Your task to perform on an android device: change keyboard looks Image 0: 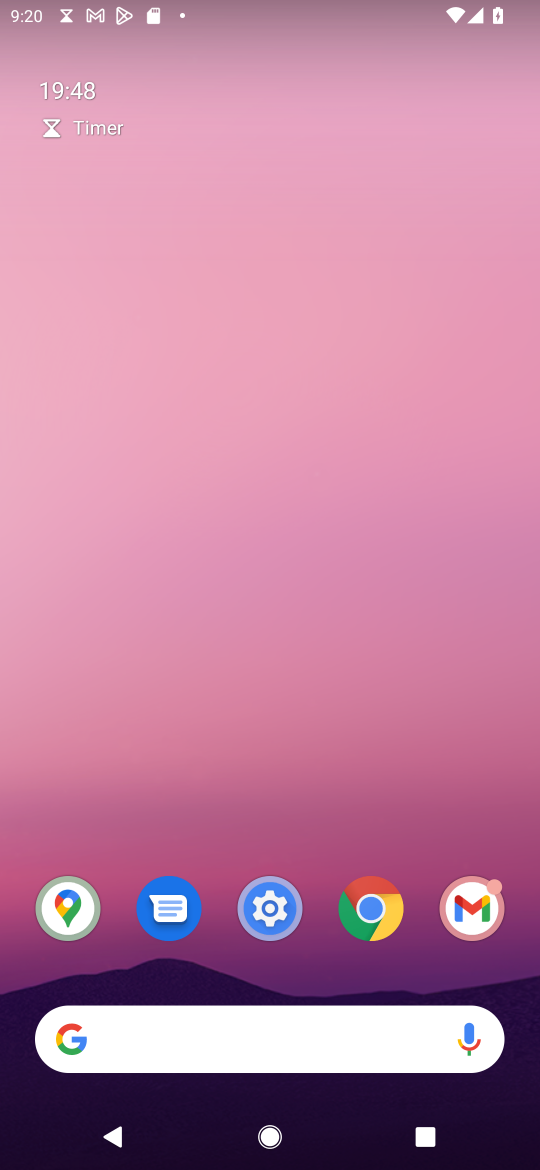
Step 0: click (293, 920)
Your task to perform on an android device: change keyboard looks Image 1: 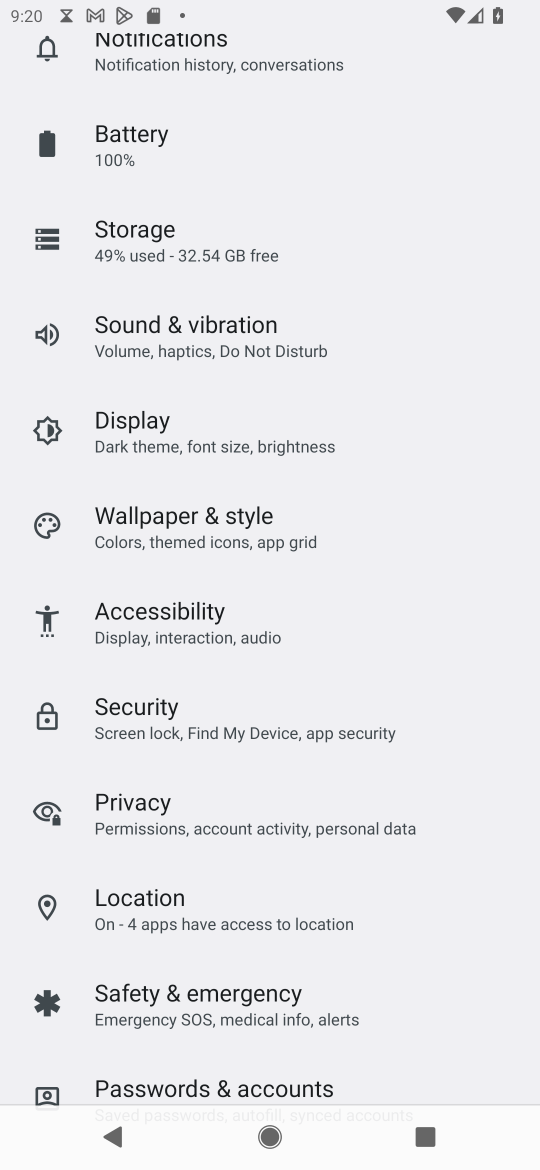
Step 1: drag from (236, 1013) to (308, 197)
Your task to perform on an android device: change keyboard looks Image 2: 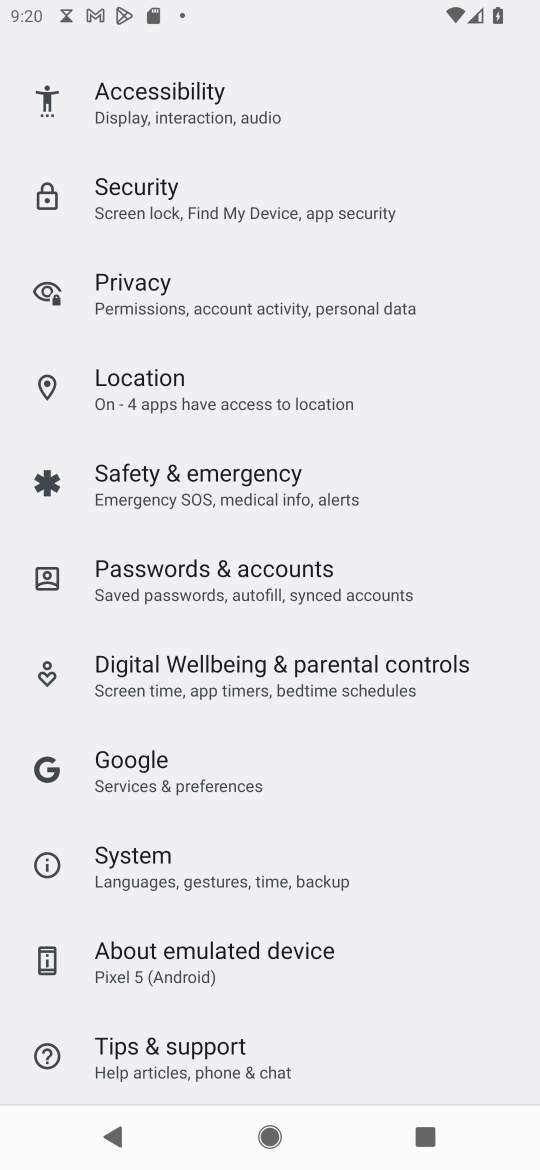
Step 2: drag from (332, 972) to (373, 423)
Your task to perform on an android device: change keyboard looks Image 3: 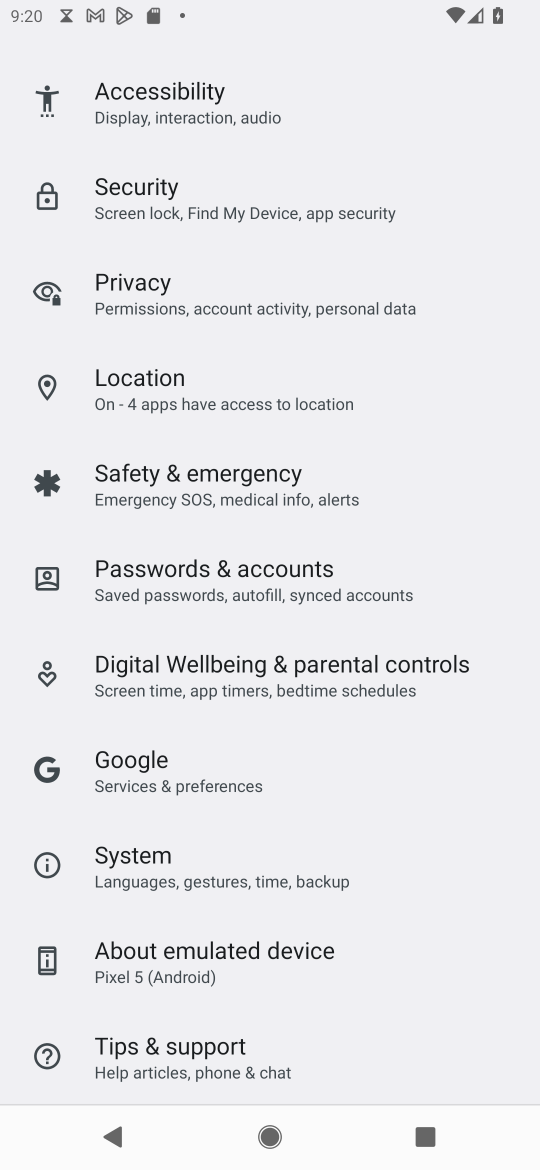
Step 3: click (194, 869)
Your task to perform on an android device: change keyboard looks Image 4: 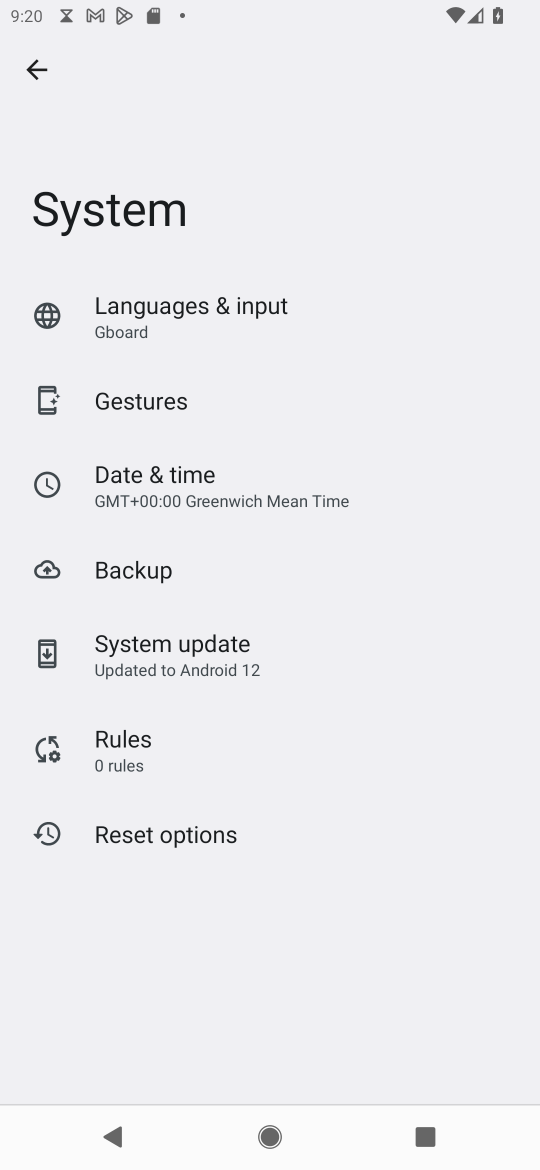
Step 4: click (132, 307)
Your task to perform on an android device: change keyboard looks Image 5: 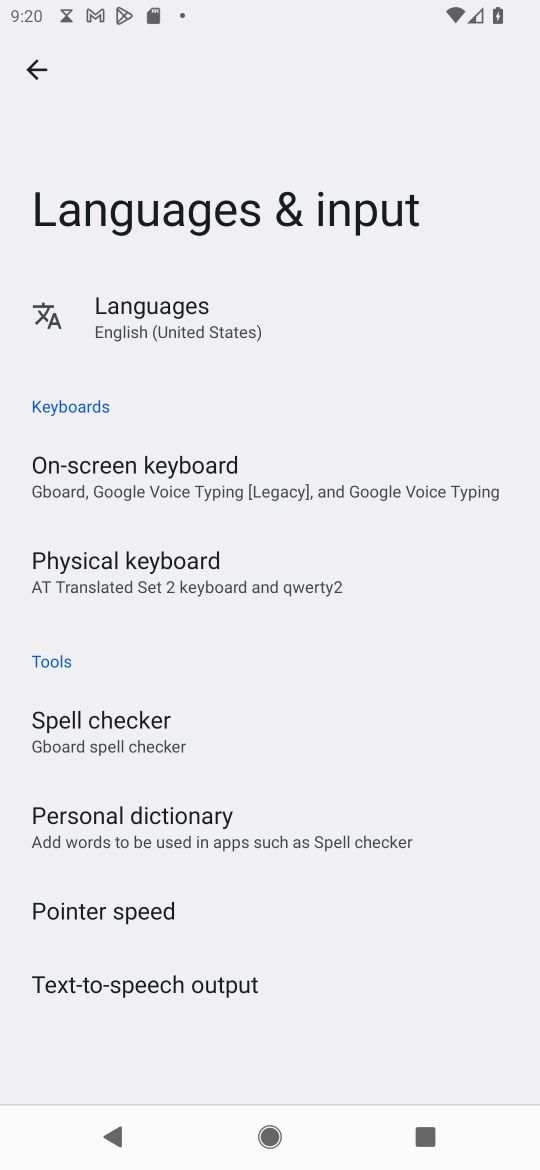
Step 5: click (125, 473)
Your task to perform on an android device: change keyboard looks Image 6: 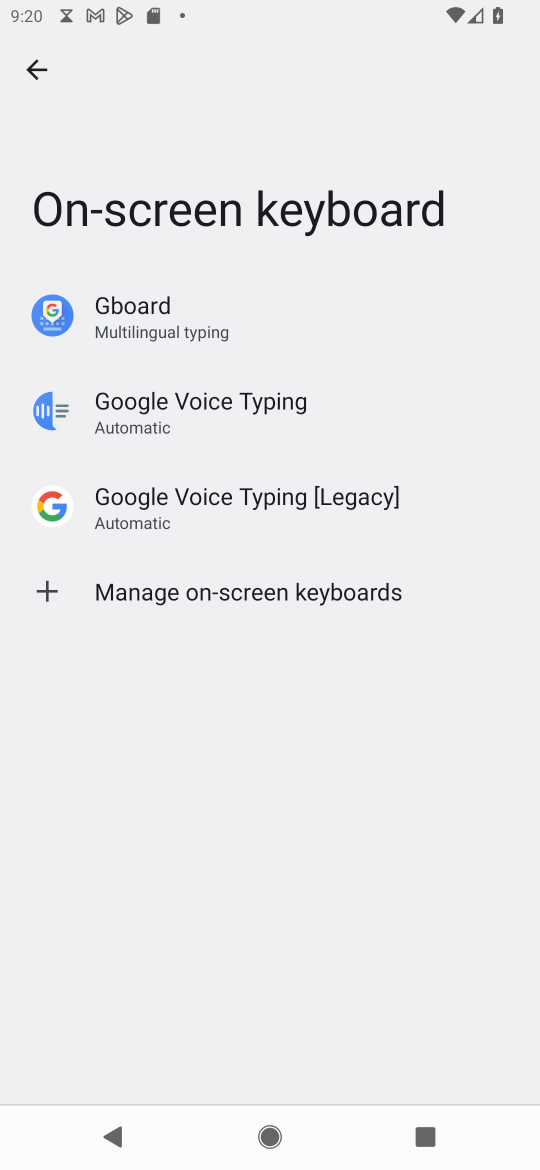
Step 6: click (128, 340)
Your task to perform on an android device: change keyboard looks Image 7: 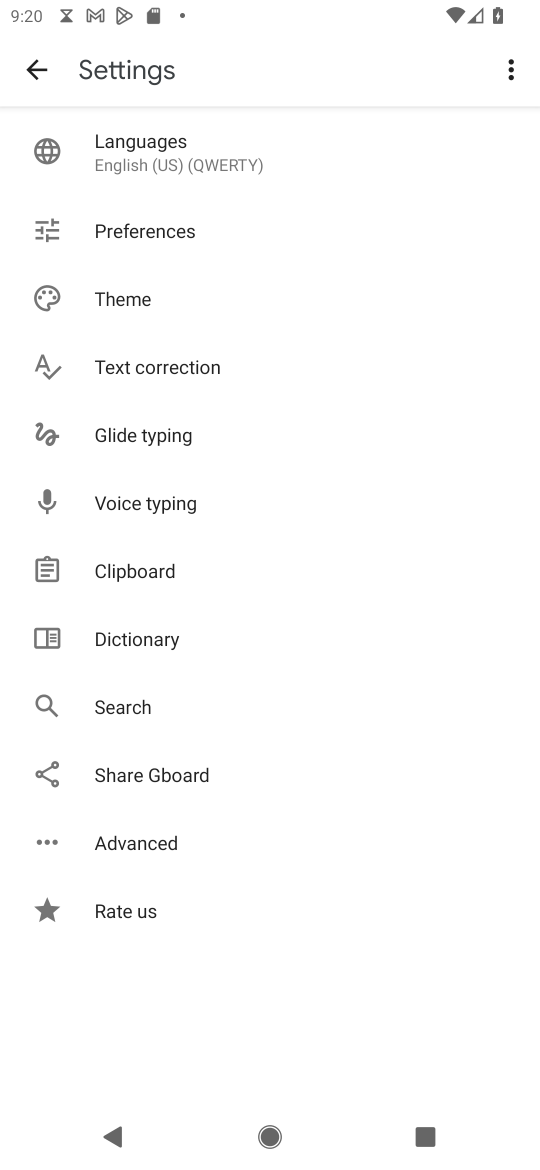
Step 7: click (82, 299)
Your task to perform on an android device: change keyboard looks Image 8: 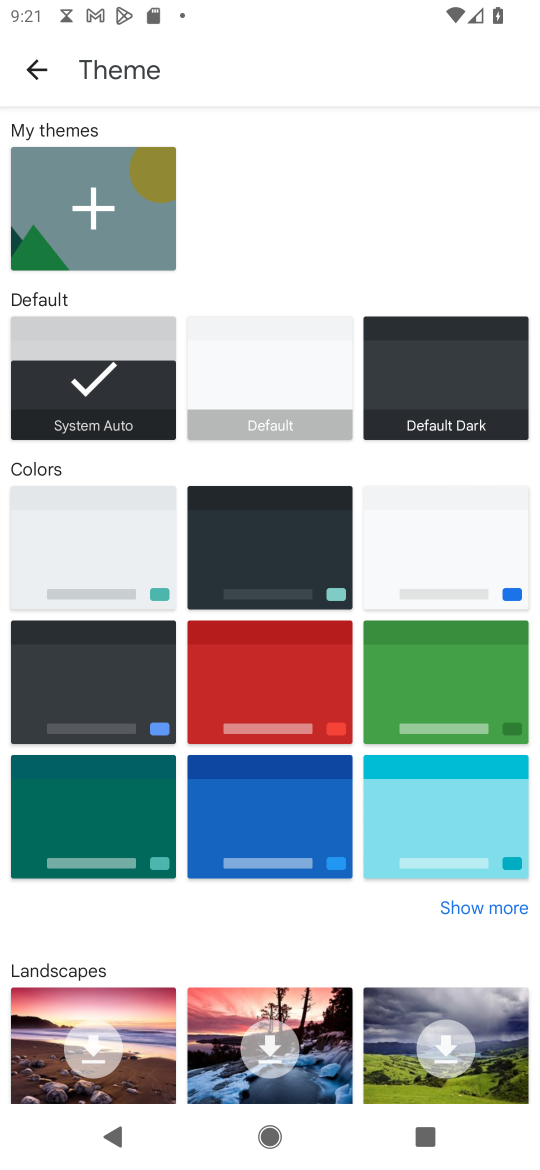
Step 8: click (271, 673)
Your task to perform on an android device: change keyboard looks Image 9: 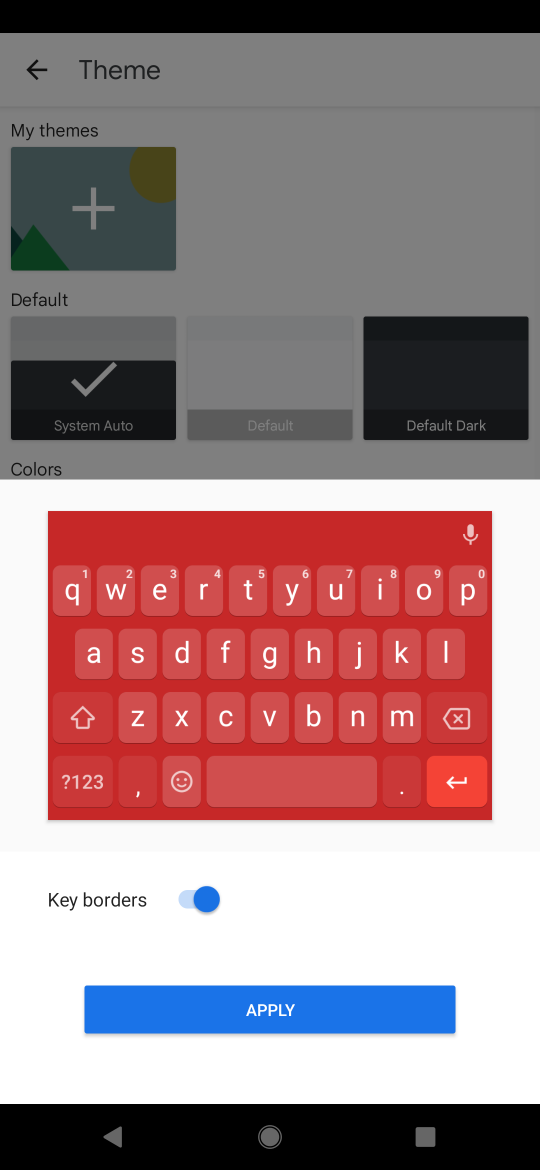
Step 9: click (248, 997)
Your task to perform on an android device: change keyboard looks Image 10: 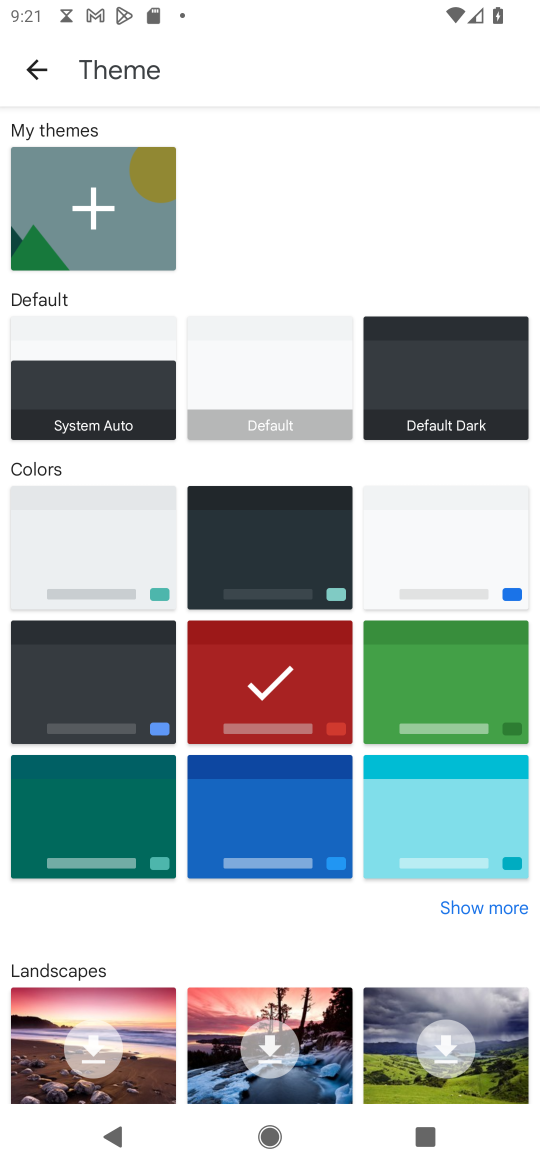
Step 10: task complete